Your task to perform on an android device: Open calendar and show me the first week of next month Image 0: 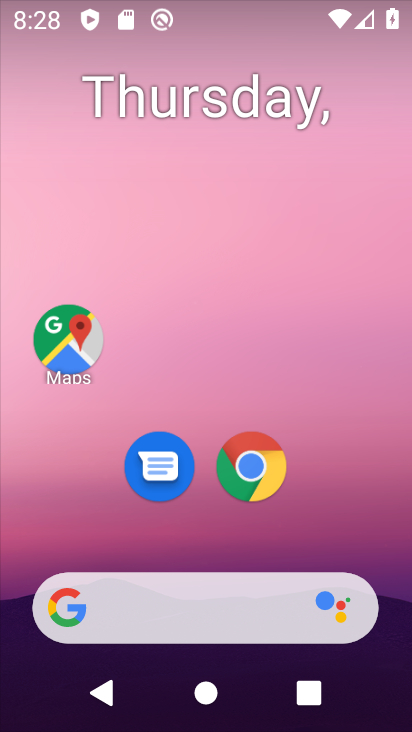
Step 0: press home button
Your task to perform on an android device: Open calendar and show me the first week of next month Image 1: 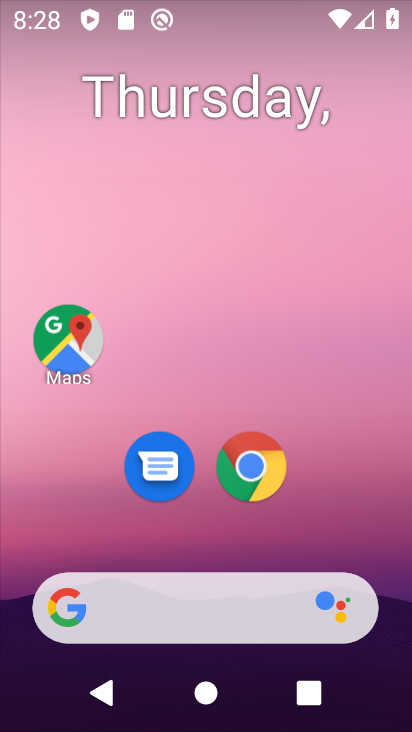
Step 1: drag from (170, 608) to (379, 95)
Your task to perform on an android device: Open calendar and show me the first week of next month Image 2: 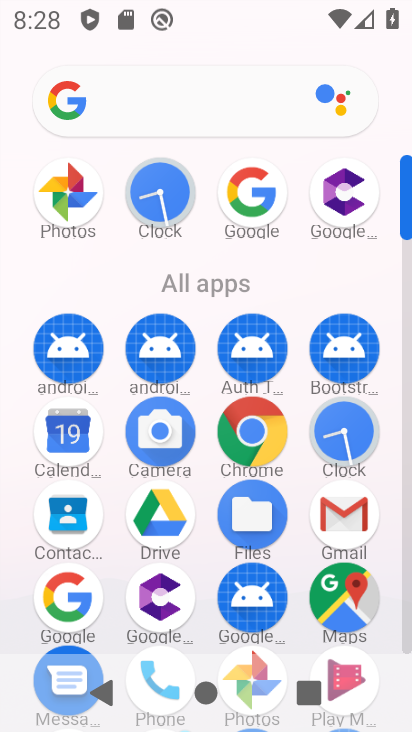
Step 2: click (74, 444)
Your task to perform on an android device: Open calendar and show me the first week of next month Image 3: 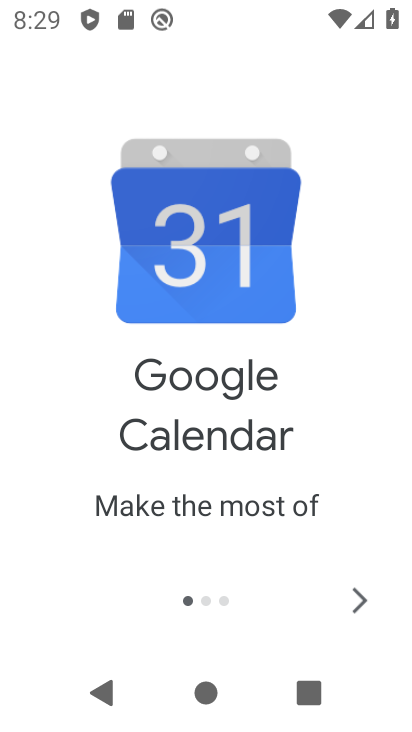
Step 3: click (361, 598)
Your task to perform on an android device: Open calendar and show me the first week of next month Image 4: 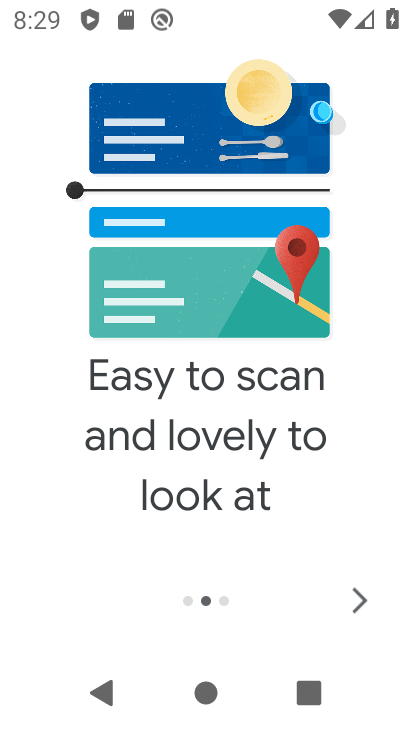
Step 4: click (361, 598)
Your task to perform on an android device: Open calendar and show me the first week of next month Image 5: 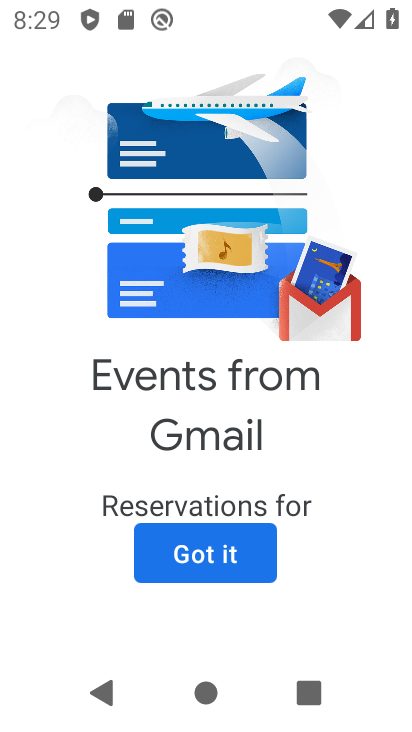
Step 5: click (217, 558)
Your task to perform on an android device: Open calendar and show me the first week of next month Image 6: 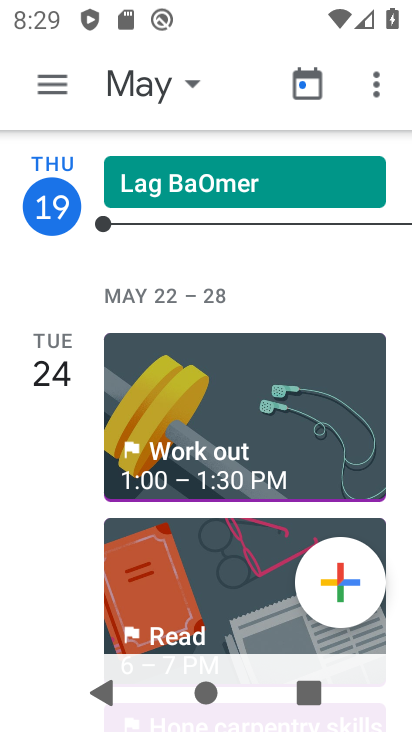
Step 6: click (146, 82)
Your task to perform on an android device: Open calendar and show me the first week of next month Image 7: 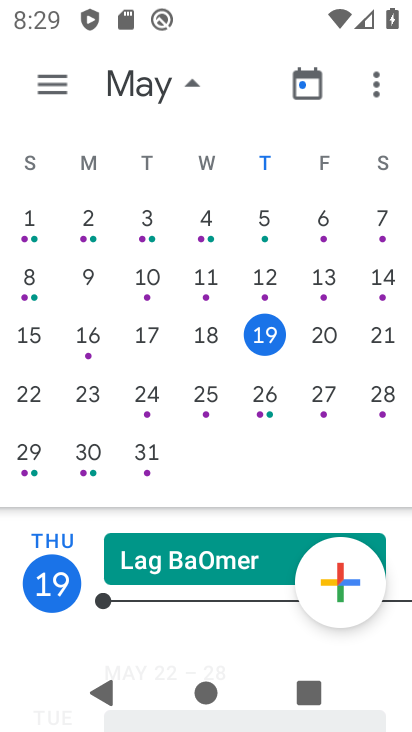
Step 7: drag from (350, 368) to (100, 353)
Your task to perform on an android device: Open calendar and show me the first week of next month Image 8: 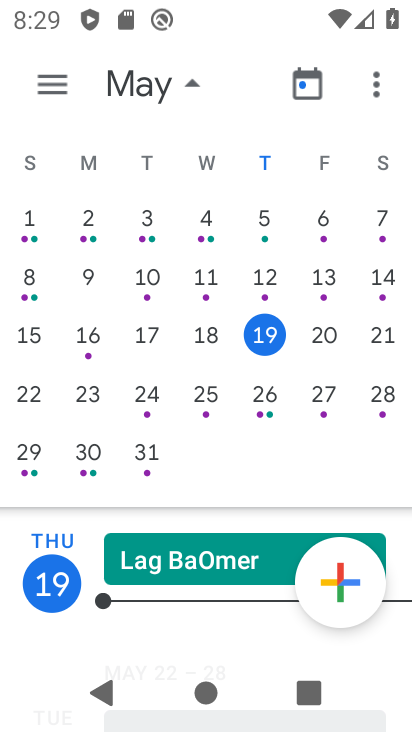
Step 8: drag from (340, 300) to (18, 286)
Your task to perform on an android device: Open calendar and show me the first week of next month Image 9: 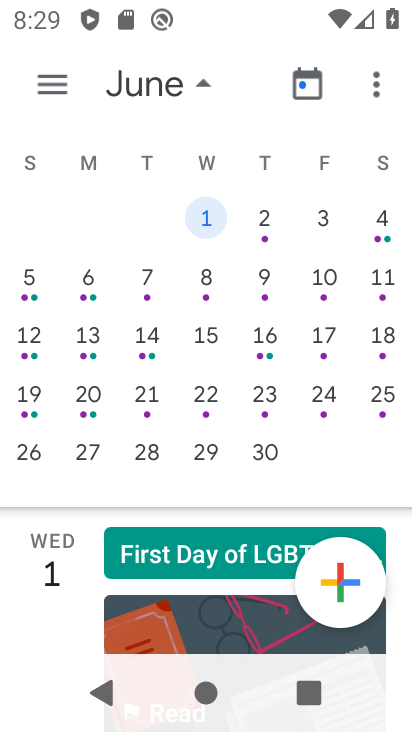
Step 9: click (205, 219)
Your task to perform on an android device: Open calendar and show me the first week of next month Image 10: 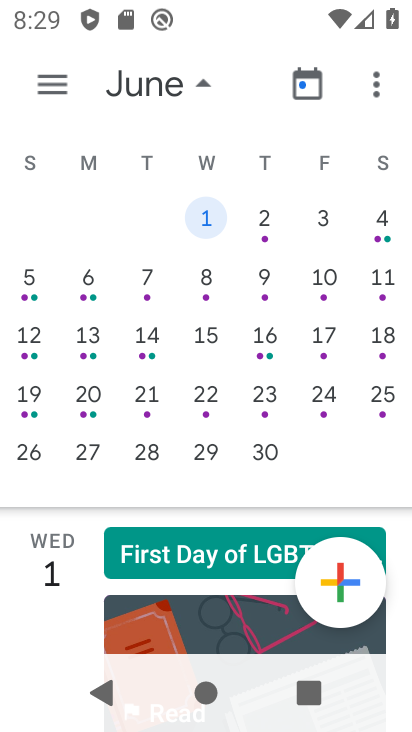
Step 10: click (55, 83)
Your task to perform on an android device: Open calendar and show me the first week of next month Image 11: 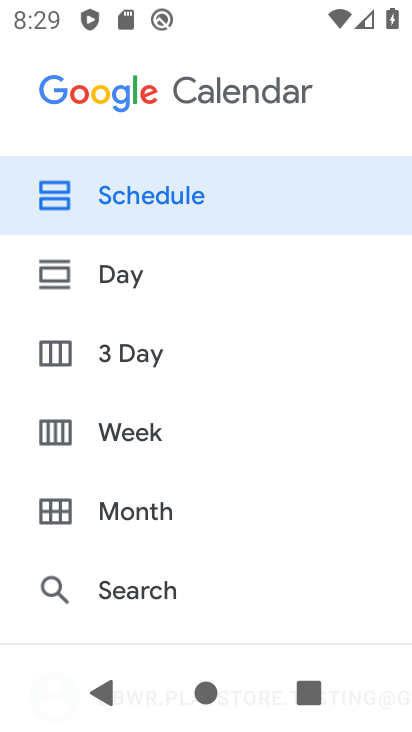
Step 11: click (132, 436)
Your task to perform on an android device: Open calendar and show me the first week of next month Image 12: 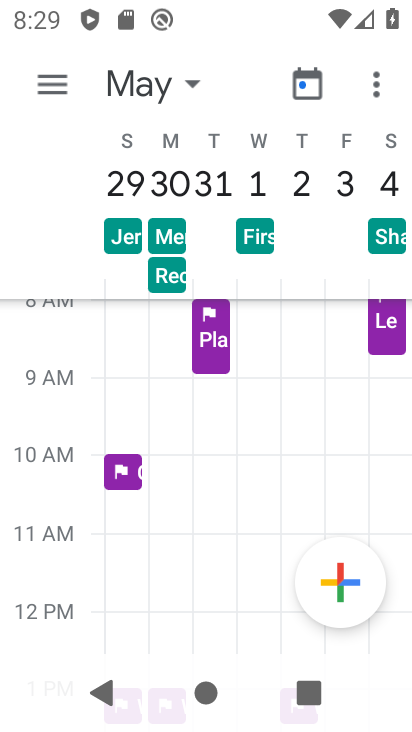
Step 12: task complete